Your task to perform on an android device: Open calendar and show me the first week of next month Image 0: 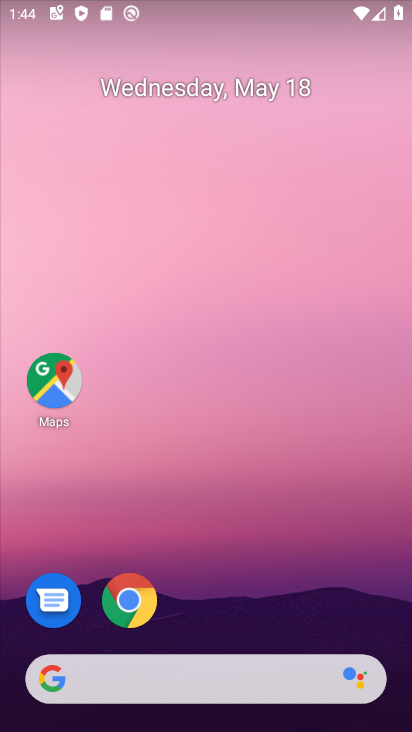
Step 0: drag from (254, 629) to (173, 138)
Your task to perform on an android device: Open calendar and show me the first week of next month Image 1: 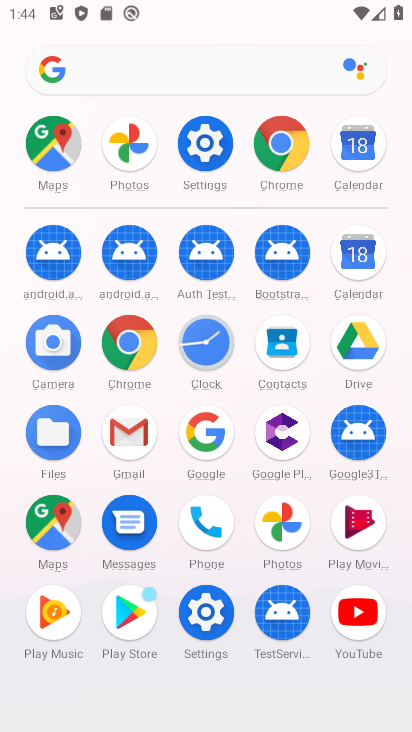
Step 1: click (363, 146)
Your task to perform on an android device: Open calendar and show me the first week of next month Image 2: 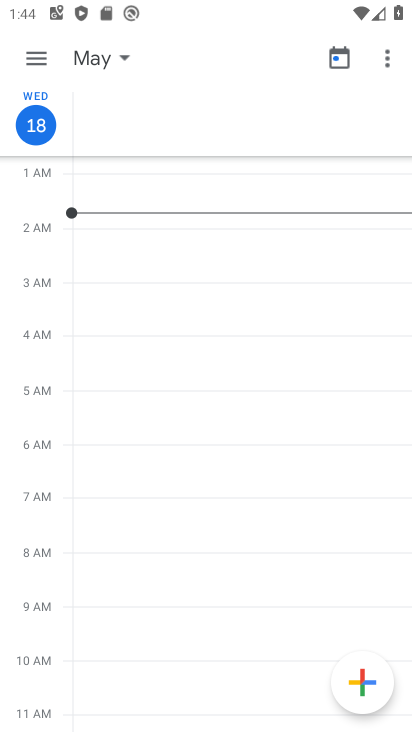
Step 2: click (342, 57)
Your task to perform on an android device: Open calendar and show me the first week of next month Image 3: 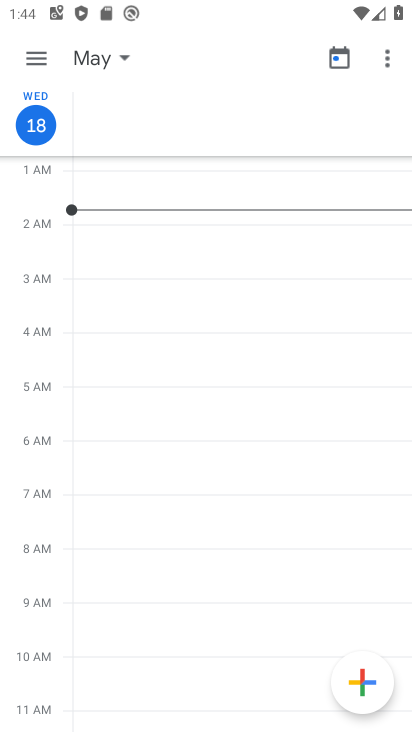
Step 3: click (123, 55)
Your task to perform on an android device: Open calendar and show me the first week of next month Image 4: 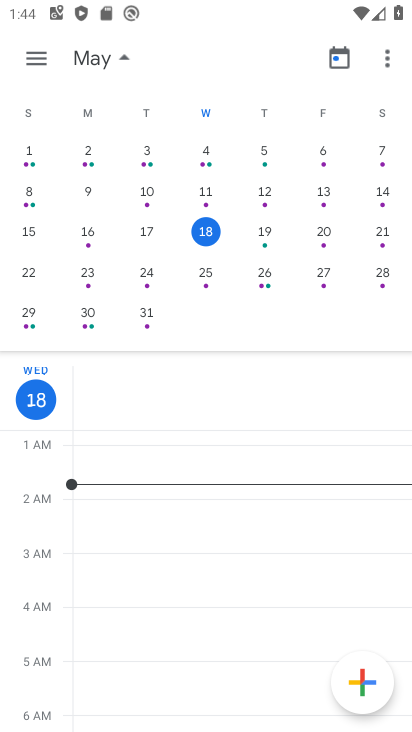
Step 4: drag from (366, 221) to (20, 214)
Your task to perform on an android device: Open calendar and show me the first week of next month Image 5: 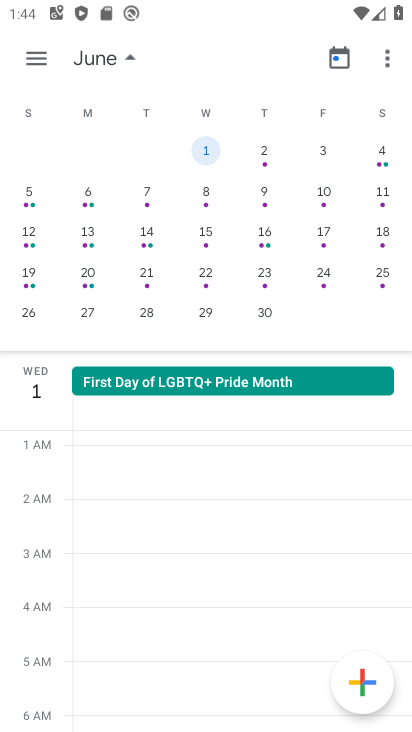
Step 5: click (86, 192)
Your task to perform on an android device: Open calendar and show me the first week of next month Image 6: 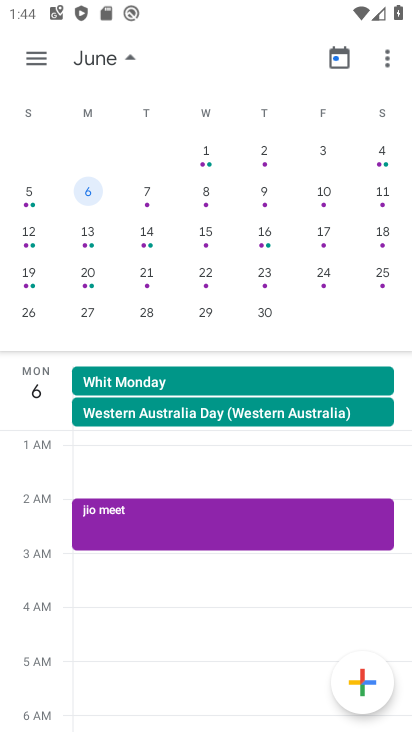
Step 6: click (31, 56)
Your task to perform on an android device: Open calendar and show me the first week of next month Image 7: 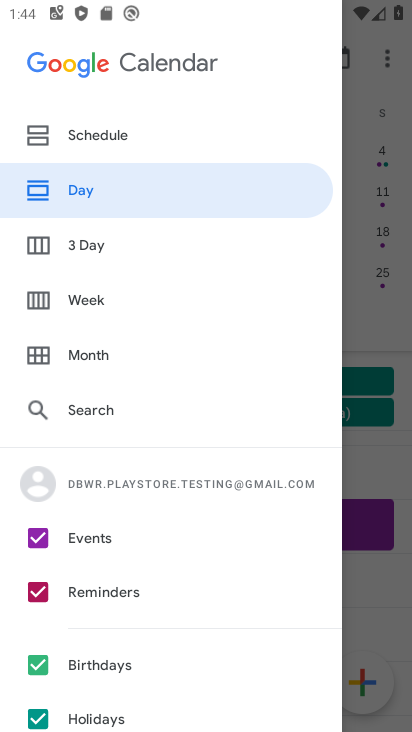
Step 7: click (96, 306)
Your task to perform on an android device: Open calendar and show me the first week of next month Image 8: 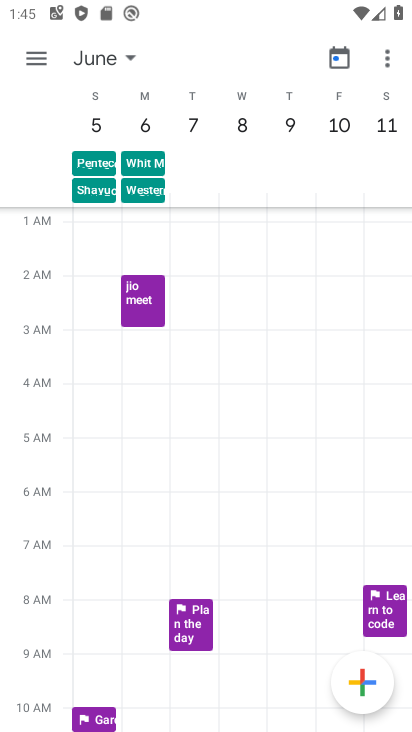
Step 8: task complete